Your task to perform on an android device: Go to Reddit.com Image 0: 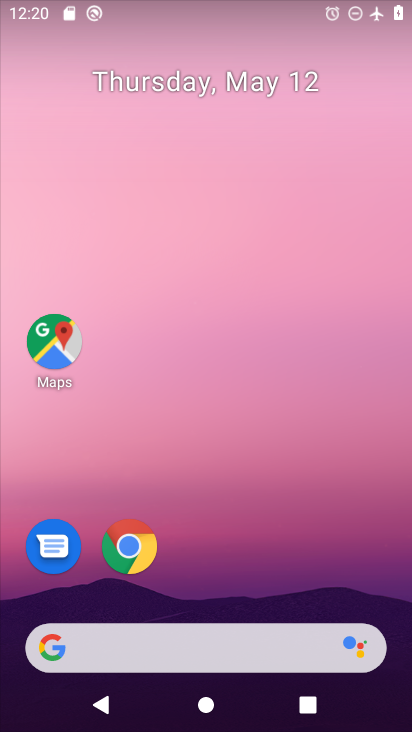
Step 0: drag from (400, 622) to (255, 75)
Your task to perform on an android device: Go to Reddit.com Image 1: 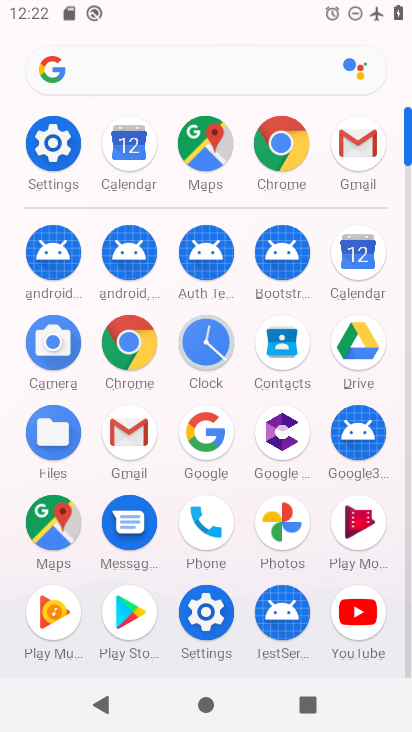
Step 1: click (124, 356)
Your task to perform on an android device: Go to Reddit.com Image 2: 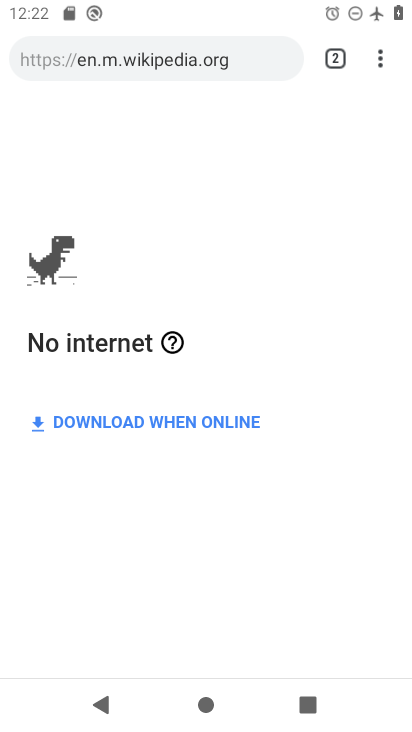
Step 2: press back button
Your task to perform on an android device: Go to Reddit.com Image 3: 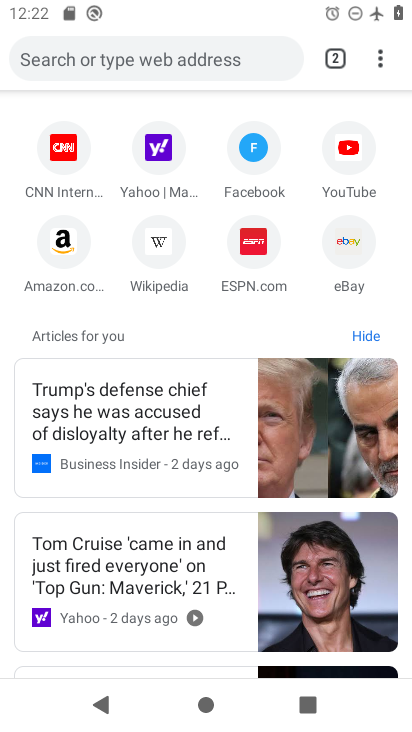
Step 3: click (137, 56)
Your task to perform on an android device: Go to Reddit.com Image 4: 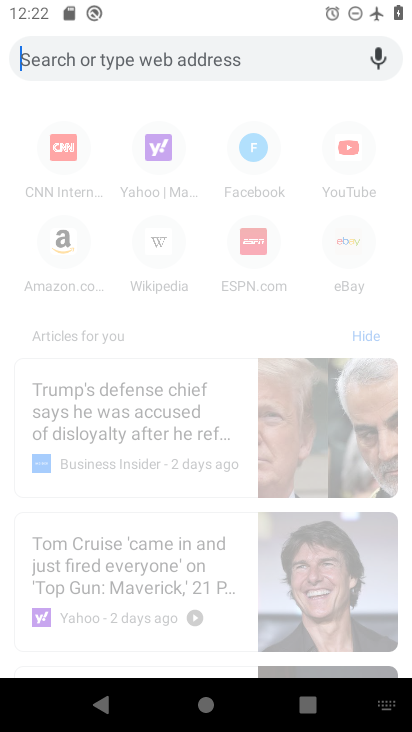
Step 4: type "reddit.com"
Your task to perform on an android device: Go to Reddit.com Image 5: 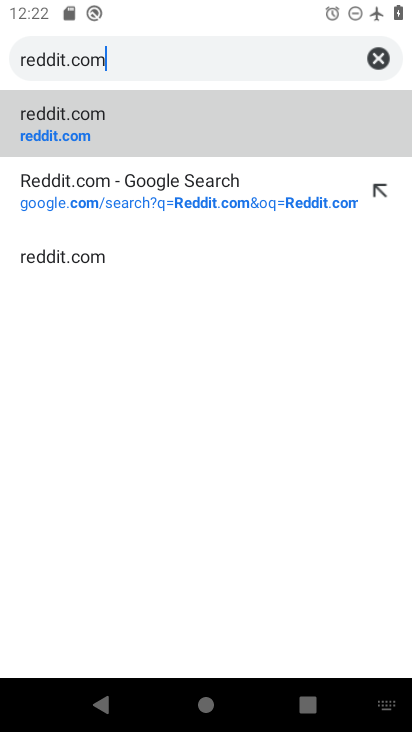
Step 5: click (179, 128)
Your task to perform on an android device: Go to Reddit.com Image 6: 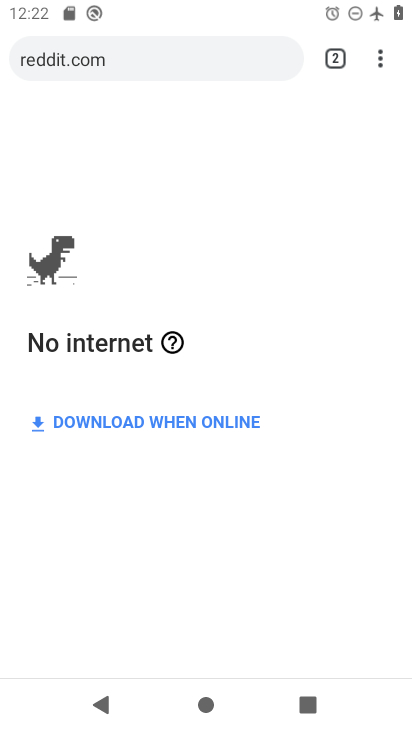
Step 6: task complete